Your task to perform on an android device: Search for seafood restaurants on Google Maps Image 0: 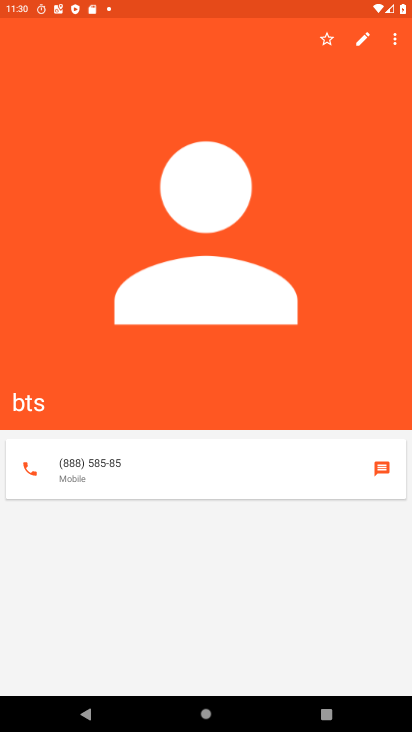
Step 0: press home button
Your task to perform on an android device: Search for seafood restaurants on Google Maps Image 1: 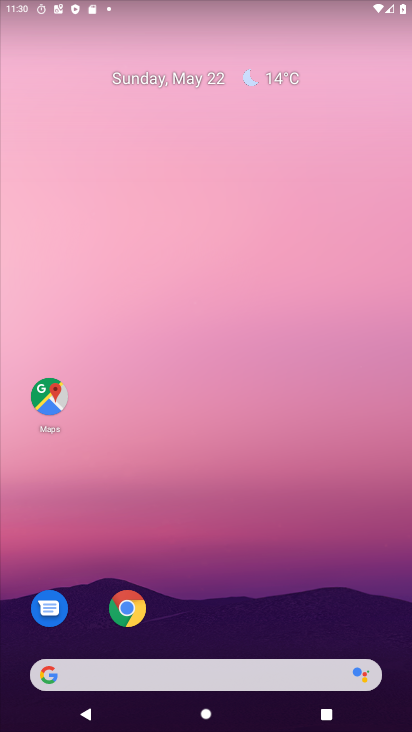
Step 1: drag from (235, 727) to (221, 88)
Your task to perform on an android device: Search for seafood restaurants on Google Maps Image 2: 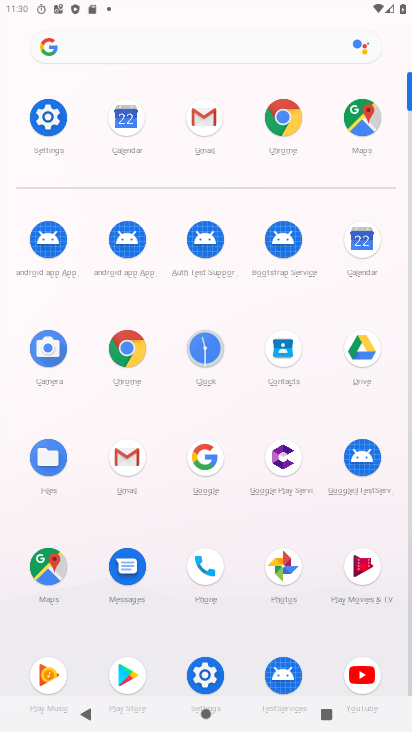
Step 2: click (47, 566)
Your task to perform on an android device: Search for seafood restaurants on Google Maps Image 3: 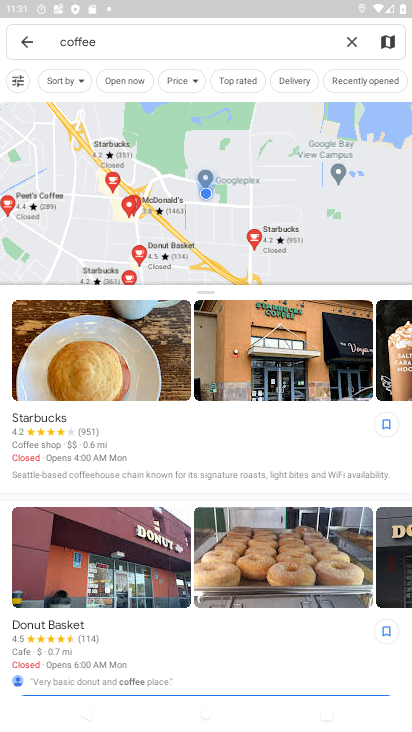
Step 3: click (349, 38)
Your task to perform on an android device: Search for seafood restaurants on Google Maps Image 4: 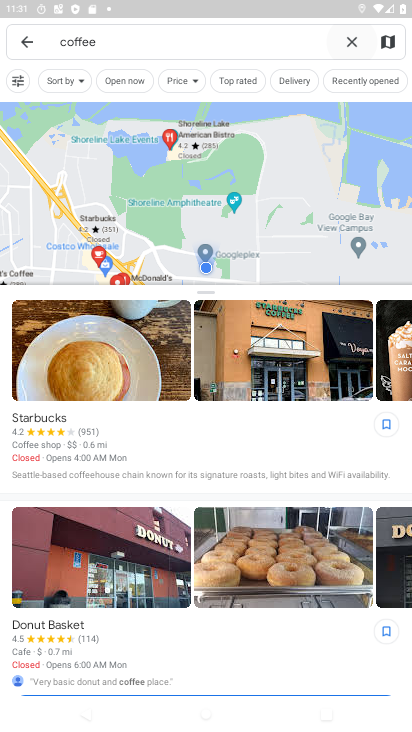
Step 4: click (182, 38)
Your task to perform on an android device: Search for seafood restaurants on Google Maps Image 5: 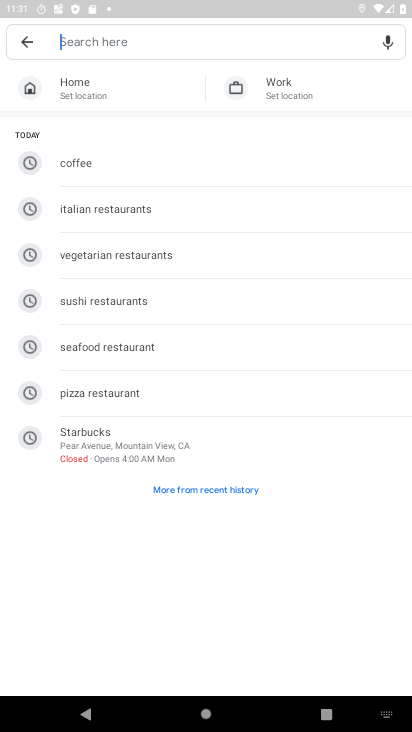
Step 5: type "seafood restaurants"
Your task to perform on an android device: Search for seafood restaurants on Google Maps Image 6: 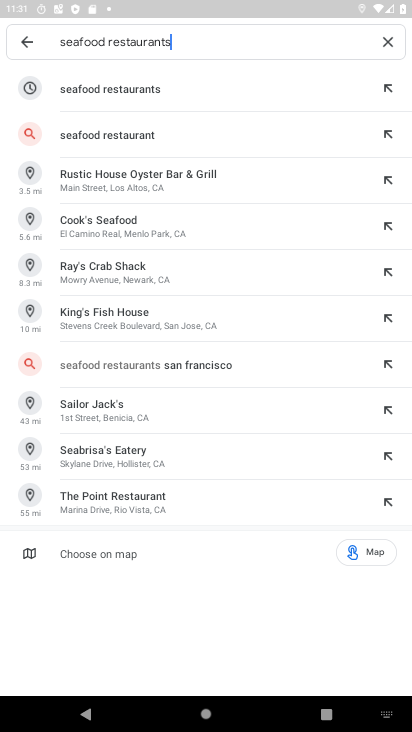
Step 6: click (149, 89)
Your task to perform on an android device: Search for seafood restaurants on Google Maps Image 7: 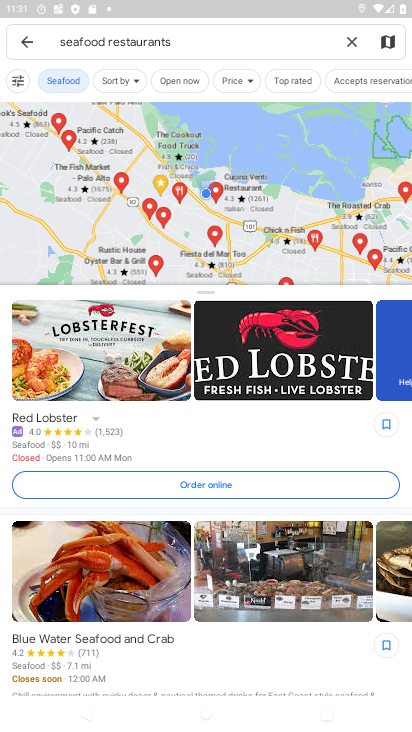
Step 7: task complete